Your task to perform on an android device: turn on notifications settings in the gmail app Image 0: 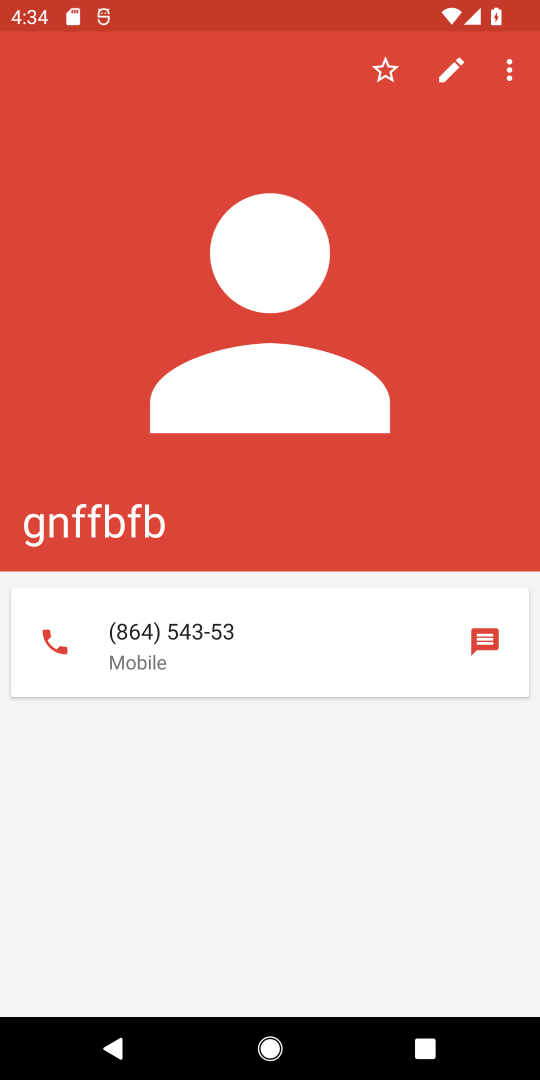
Step 0: press home button
Your task to perform on an android device: turn on notifications settings in the gmail app Image 1: 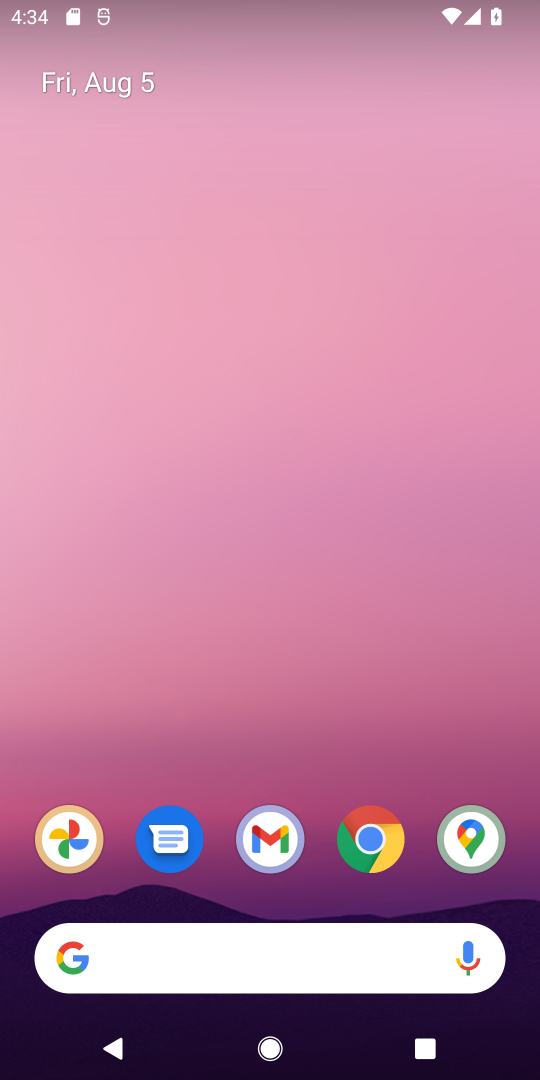
Step 1: click (261, 822)
Your task to perform on an android device: turn on notifications settings in the gmail app Image 2: 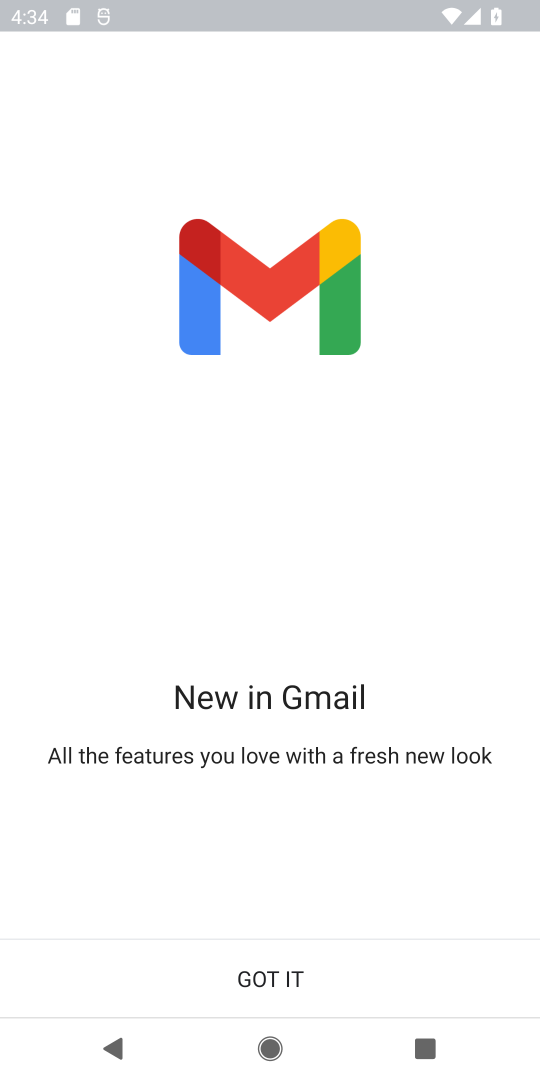
Step 2: click (286, 962)
Your task to perform on an android device: turn on notifications settings in the gmail app Image 3: 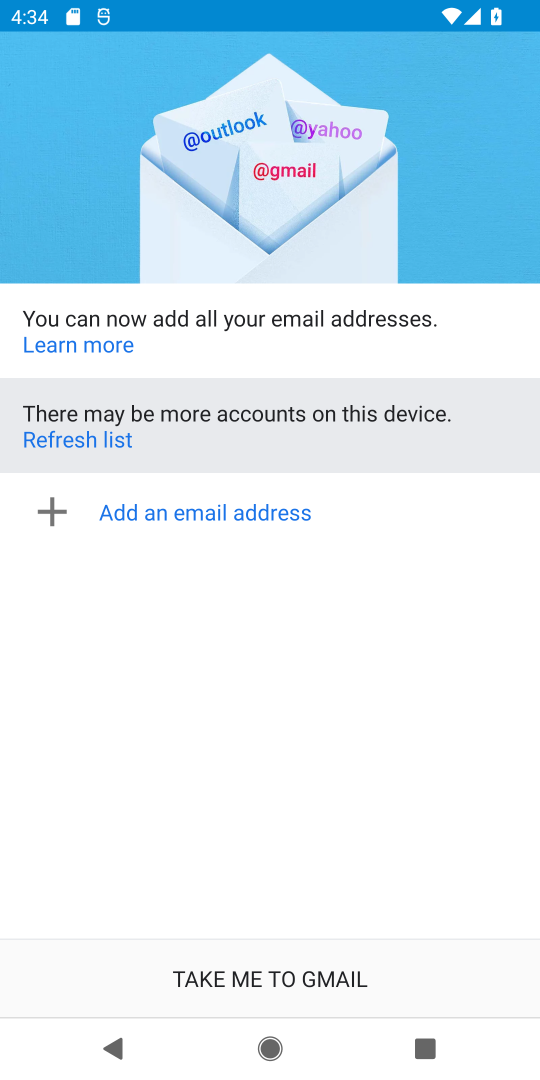
Step 3: click (286, 962)
Your task to perform on an android device: turn on notifications settings in the gmail app Image 4: 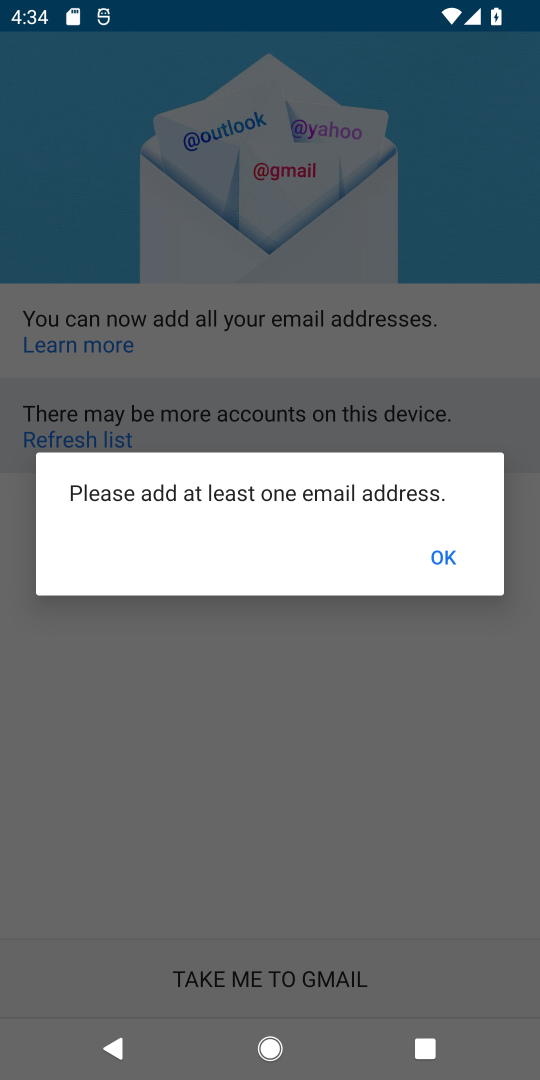
Step 4: click (456, 563)
Your task to perform on an android device: turn on notifications settings in the gmail app Image 5: 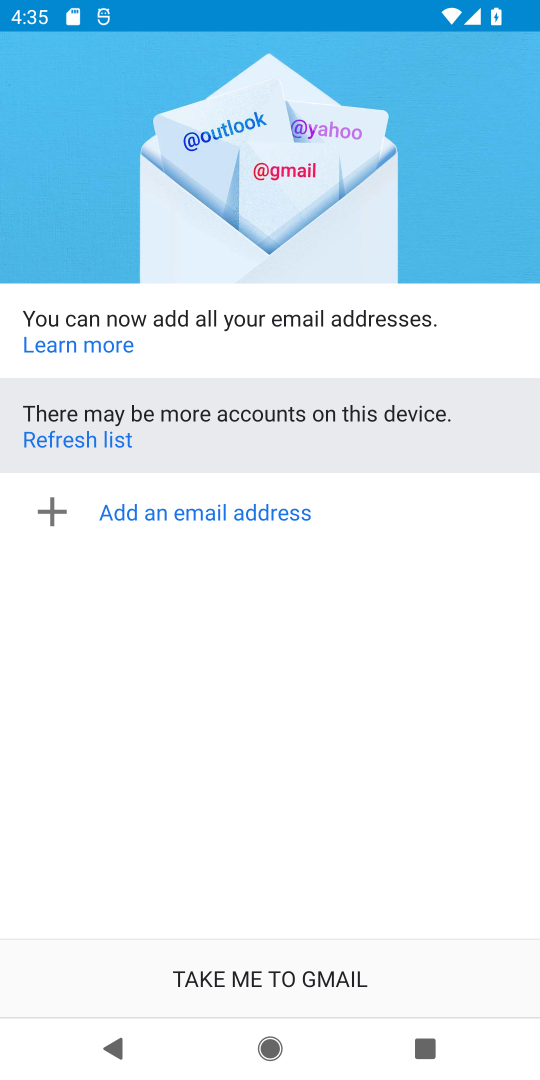
Step 5: click (227, 429)
Your task to perform on an android device: turn on notifications settings in the gmail app Image 6: 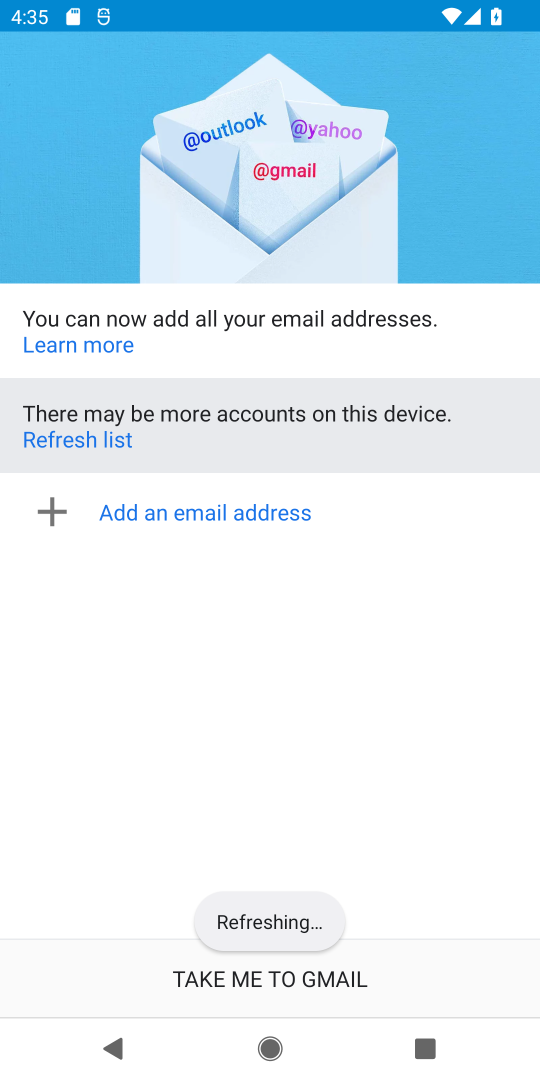
Step 6: click (53, 505)
Your task to perform on an android device: turn on notifications settings in the gmail app Image 7: 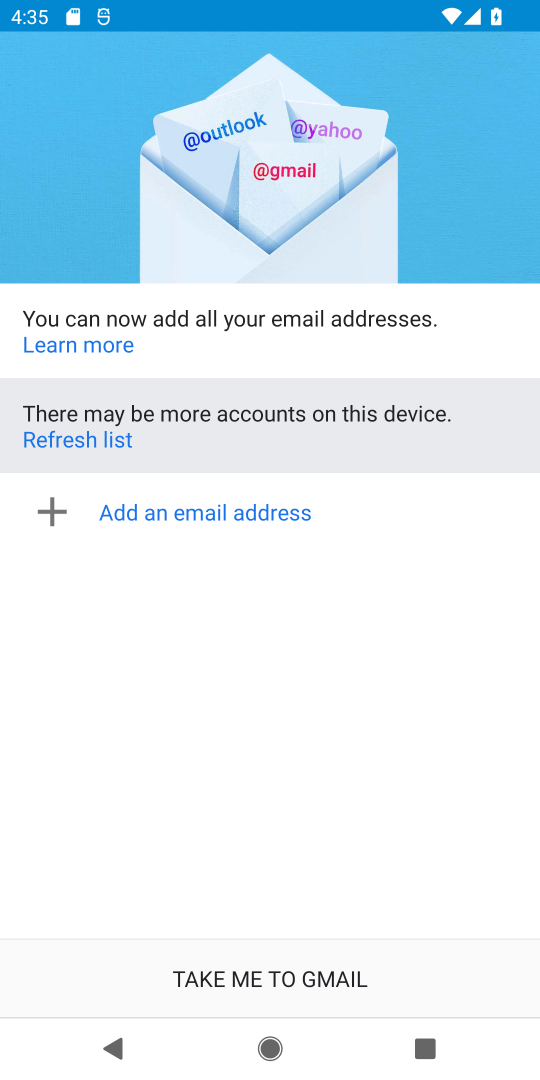
Step 7: click (59, 515)
Your task to perform on an android device: turn on notifications settings in the gmail app Image 8: 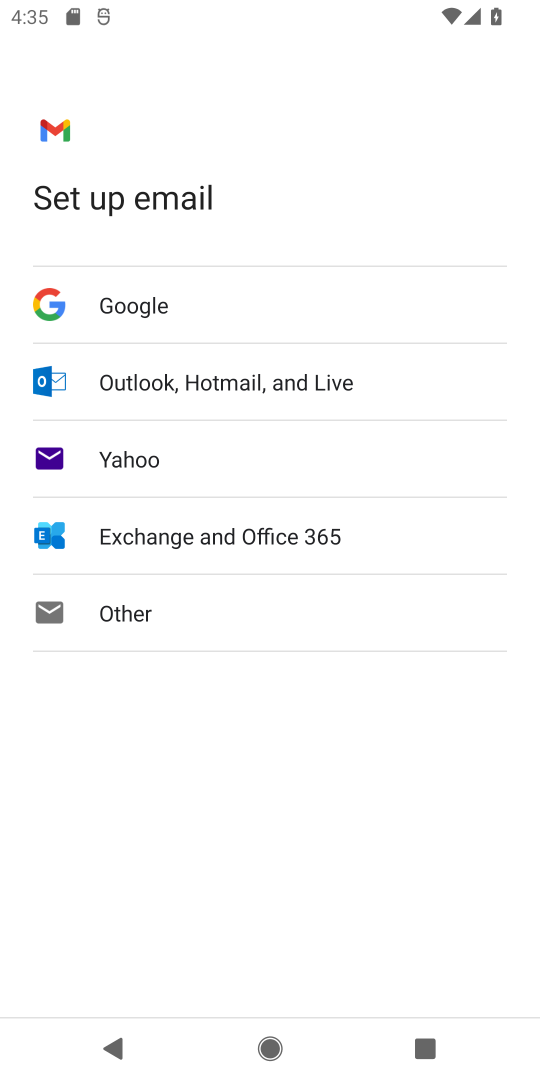
Step 8: press back button
Your task to perform on an android device: turn on notifications settings in the gmail app Image 9: 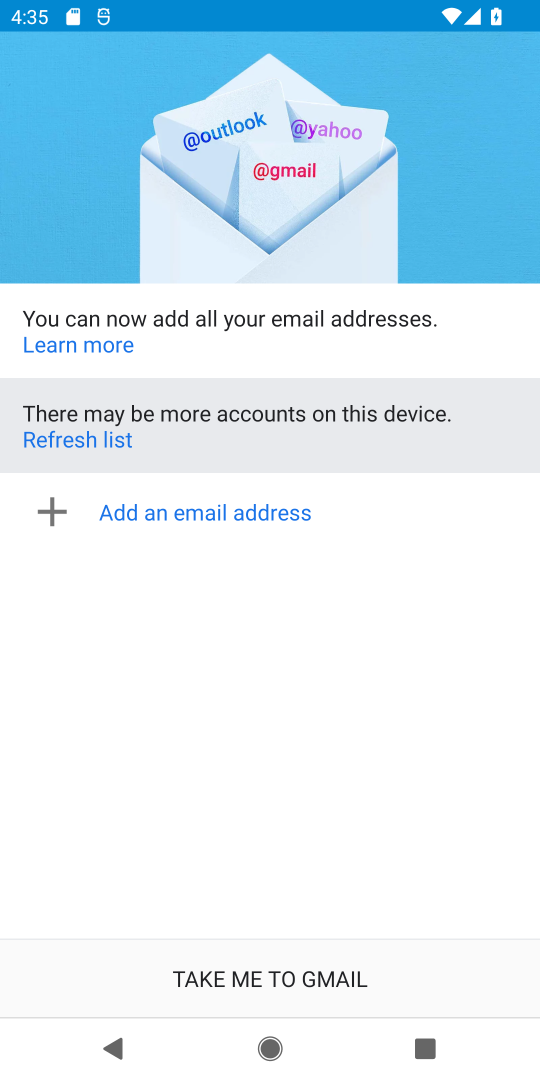
Step 9: click (195, 507)
Your task to perform on an android device: turn on notifications settings in the gmail app Image 10: 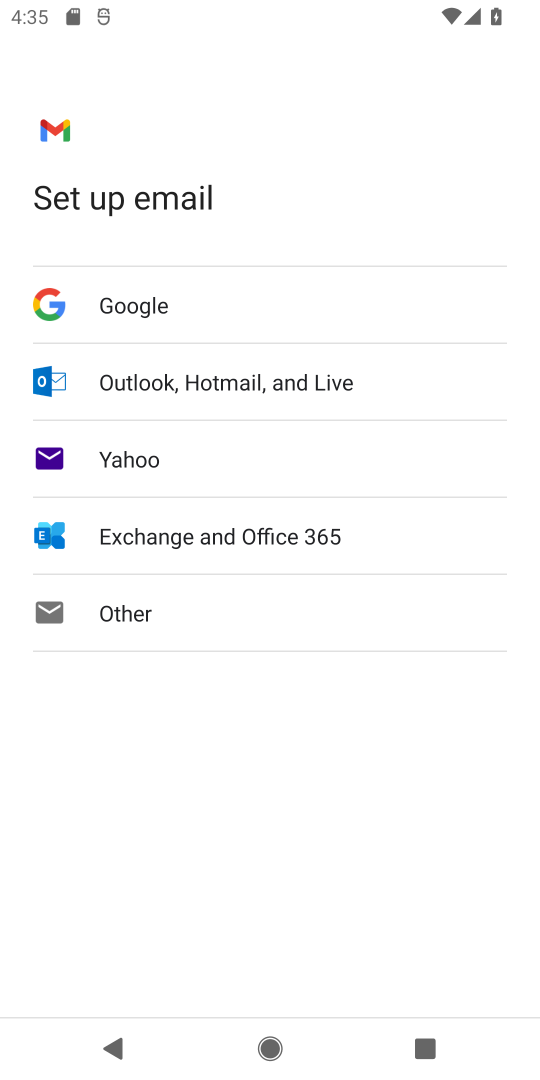
Step 10: task complete